Your task to perform on an android device: When is my next appointment? Image 0: 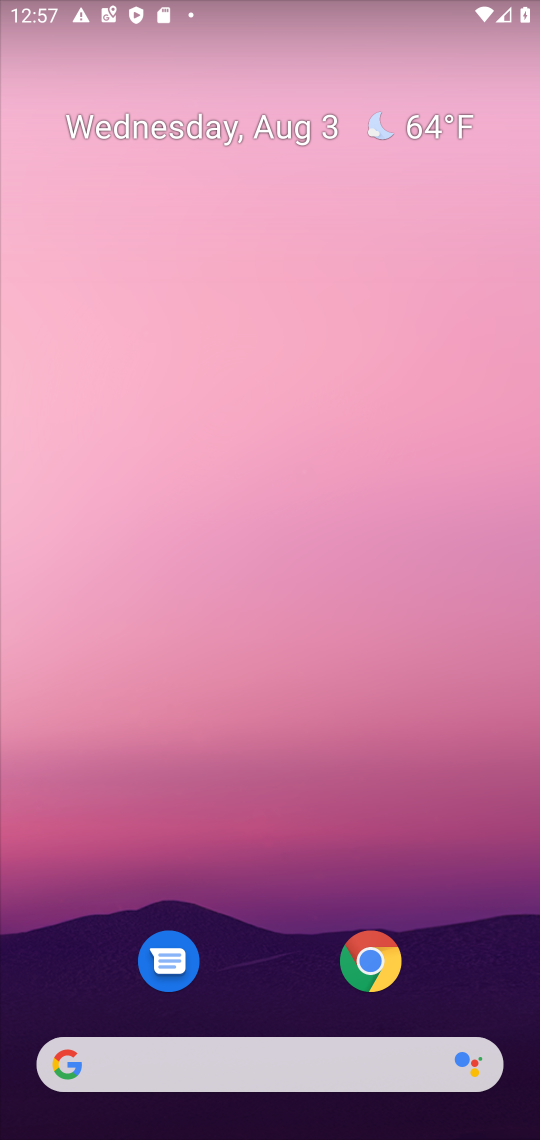
Step 0: drag from (277, 980) to (370, 41)
Your task to perform on an android device: When is my next appointment? Image 1: 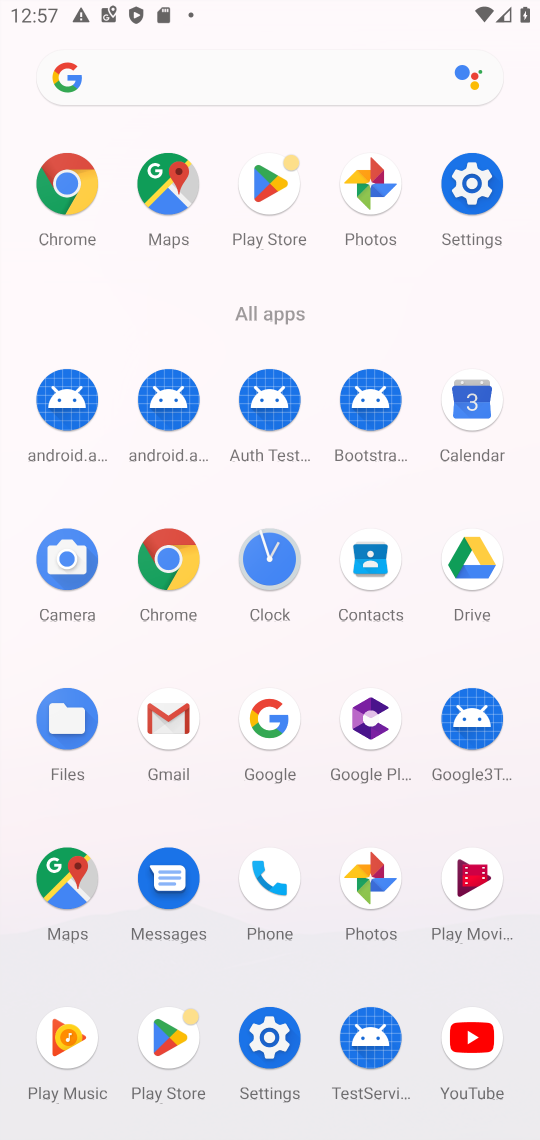
Step 1: click (483, 402)
Your task to perform on an android device: When is my next appointment? Image 2: 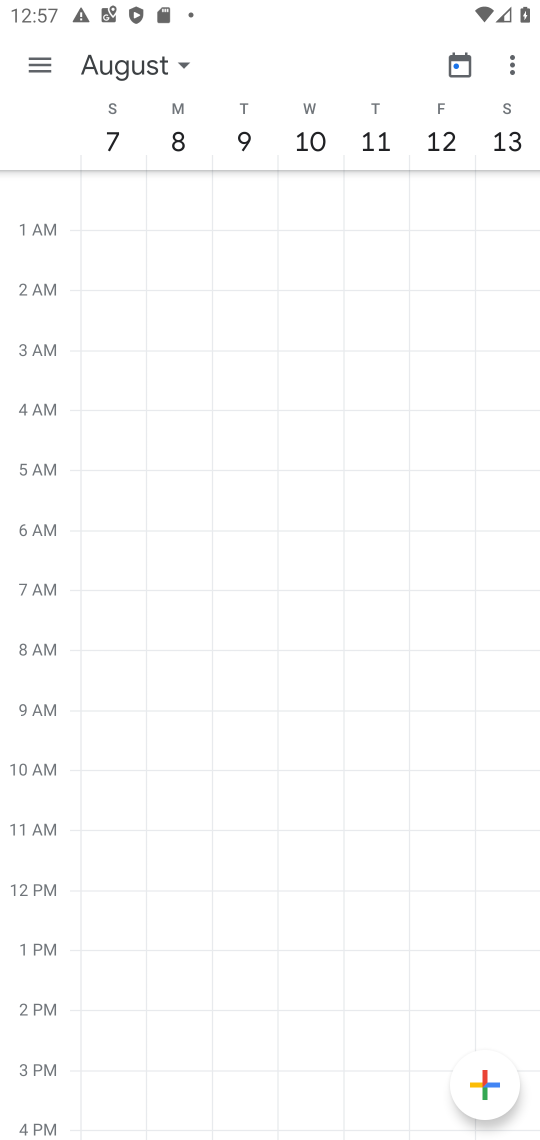
Step 2: click (62, 67)
Your task to perform on an android device: When is my next appointment? Image 3: 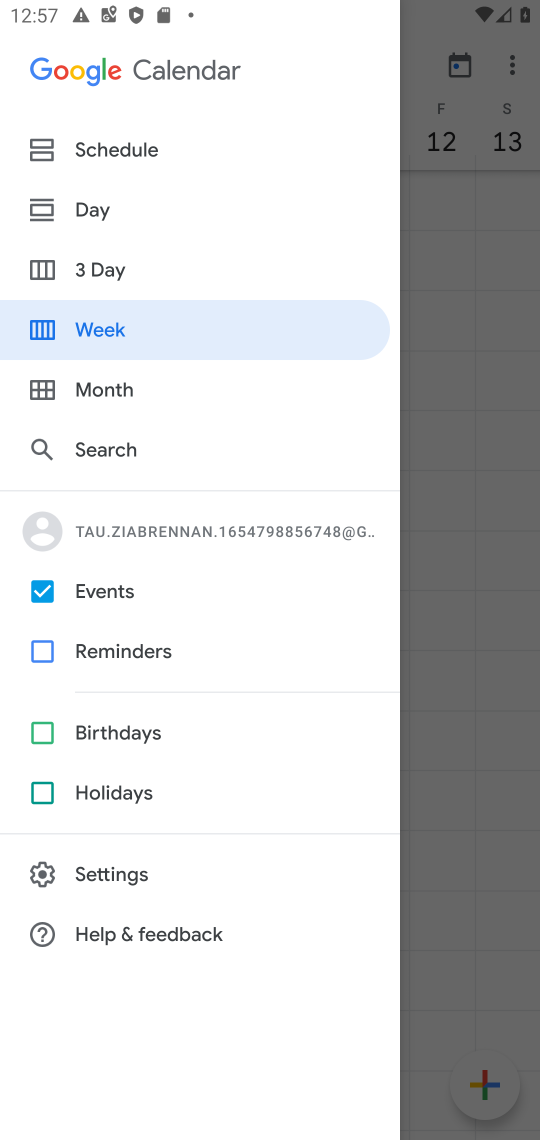
Step 3: click (86, 158)
Your task to perform on an android device: When is my next appointment? Image 4: 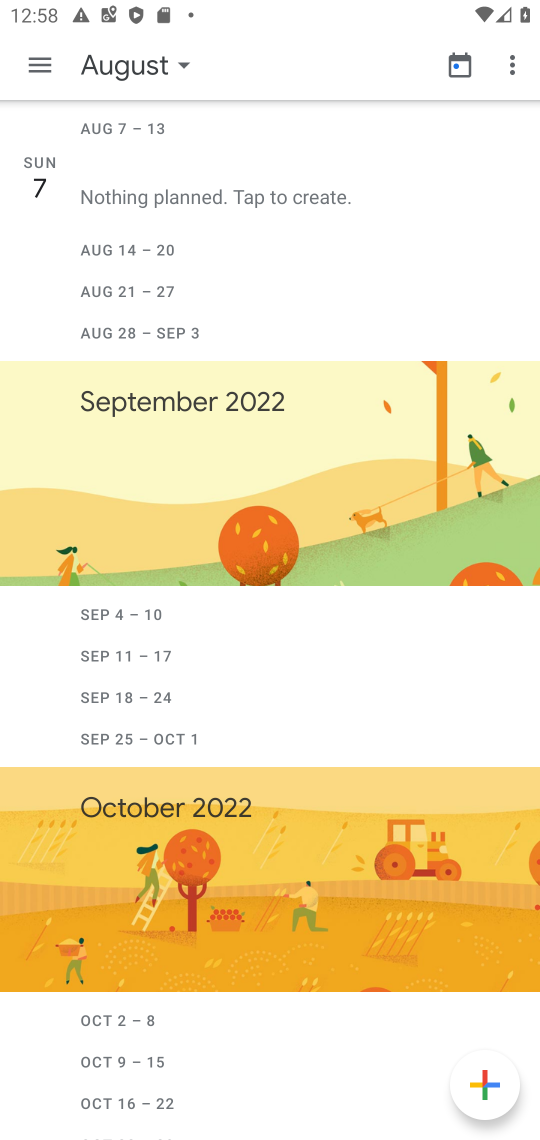
Step 4: click (41, 56)
Your task to perform on an android device: When is my next appointment? Image 5: 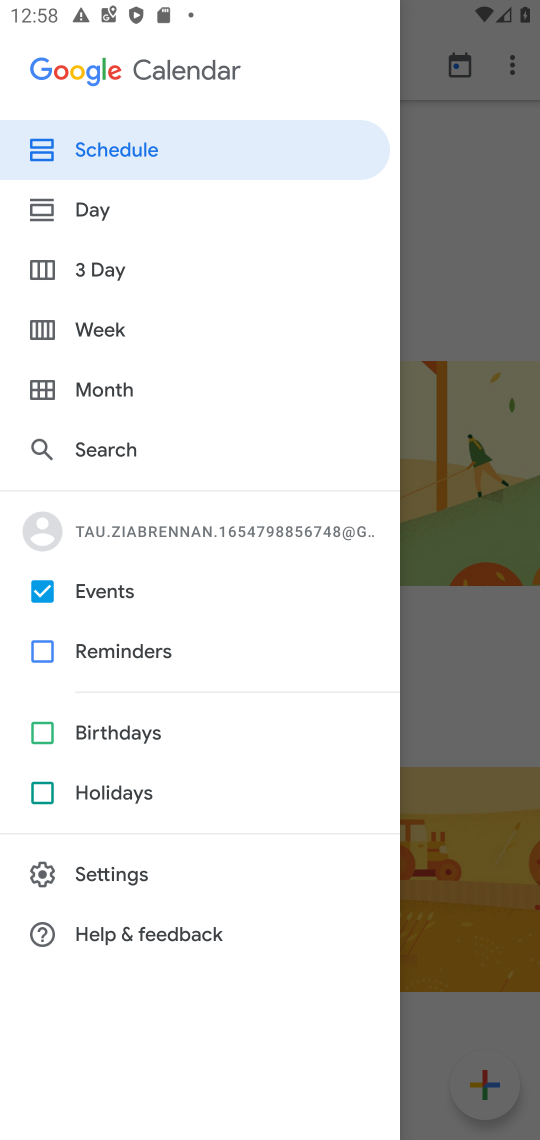
Step 5: click (117, 157)
Your task to perform on an android device: When is my next appointment? Image 6: 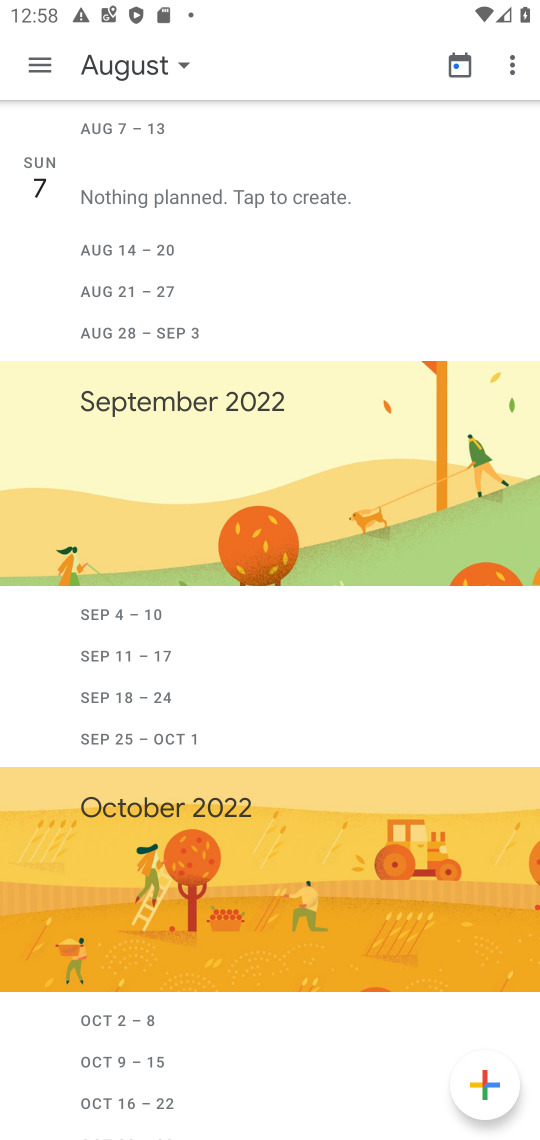
Step 6: task complete